Your task to perform on an android device: set default search engine in the chrome app Image 0: 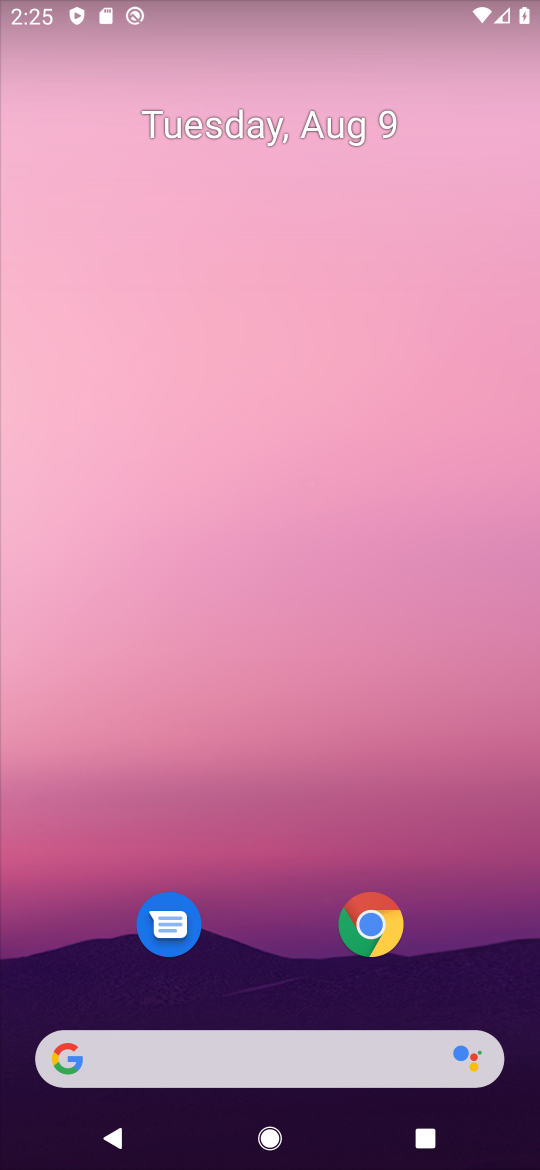
Step 0: click (379, 931)
Your task to perform on an android device: set default search engine in the chrome app Image 1: 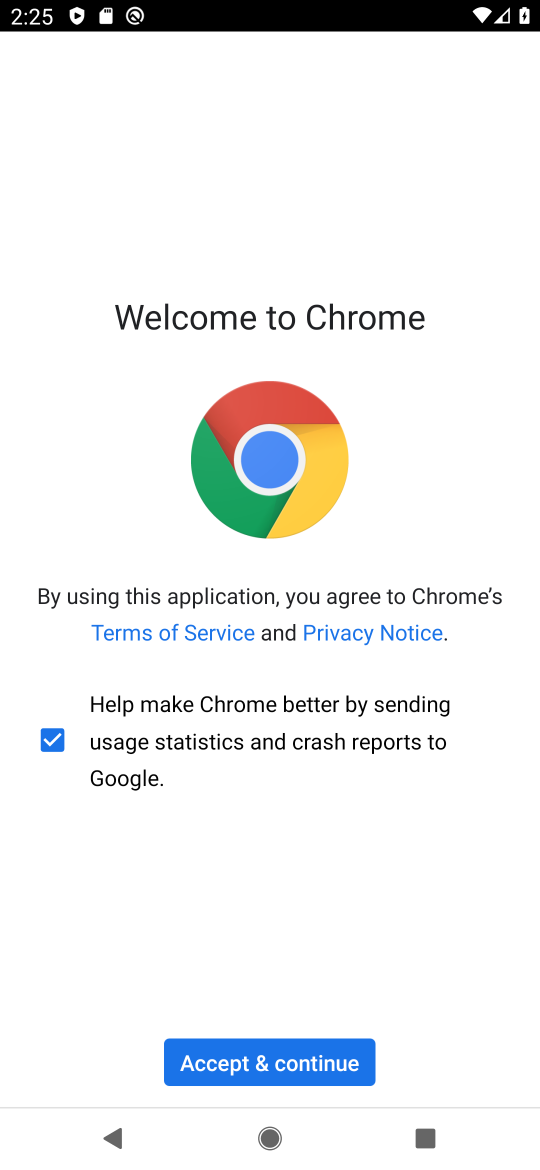
Step 1: click (345, 1056)
Your task to perform on an android device: set default search engine in the chrome app Image 2: 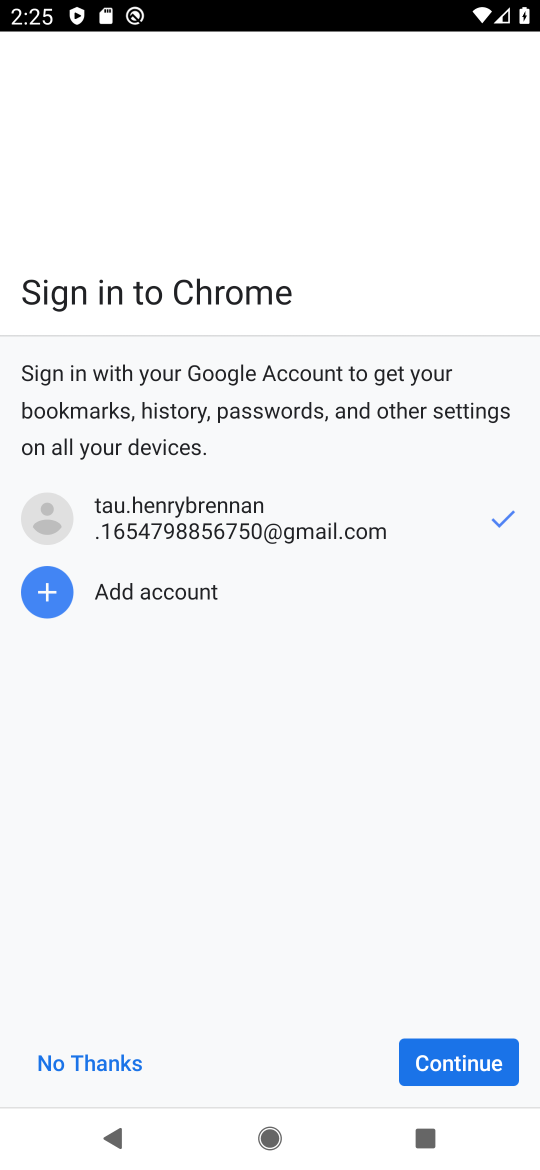
Step 2: click (419, 1060)
Your task to perform on an android device: set default search engine in the chrome app Image 3: 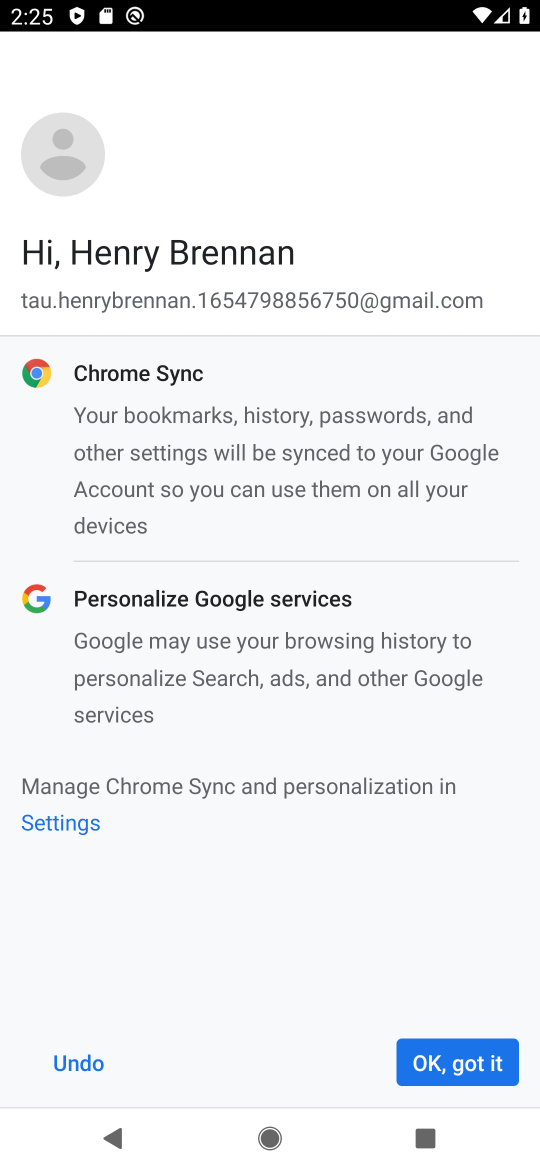
Step 3: click (419, 1060)
Your task to perform on an android device: set default search engine in the chrome app Image 4: 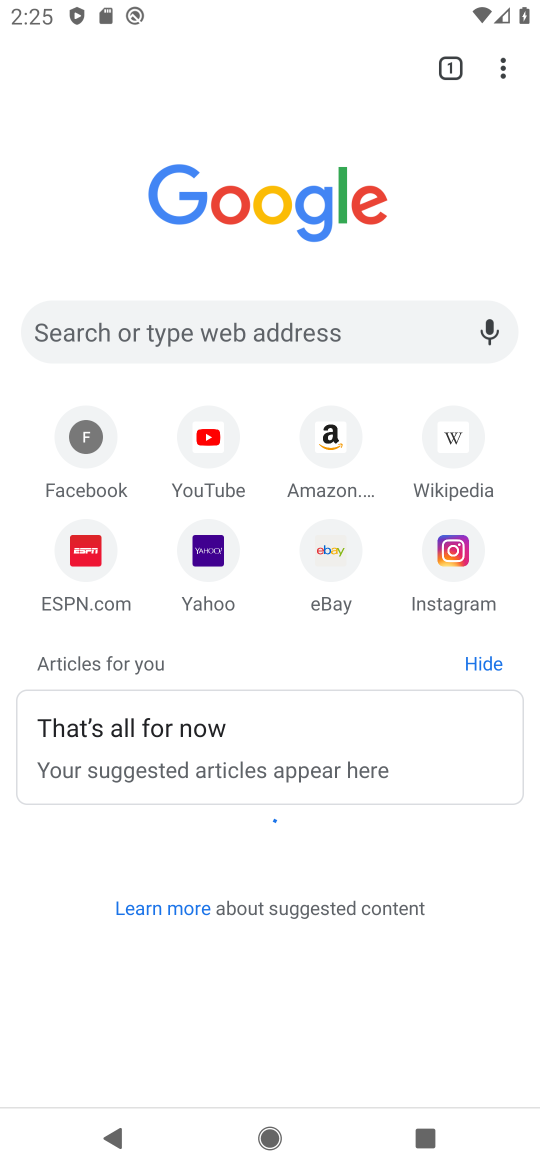
Step 4: click (498, 70)
Your task to perform on an android device: set default search engine in the chrome app Image 5: 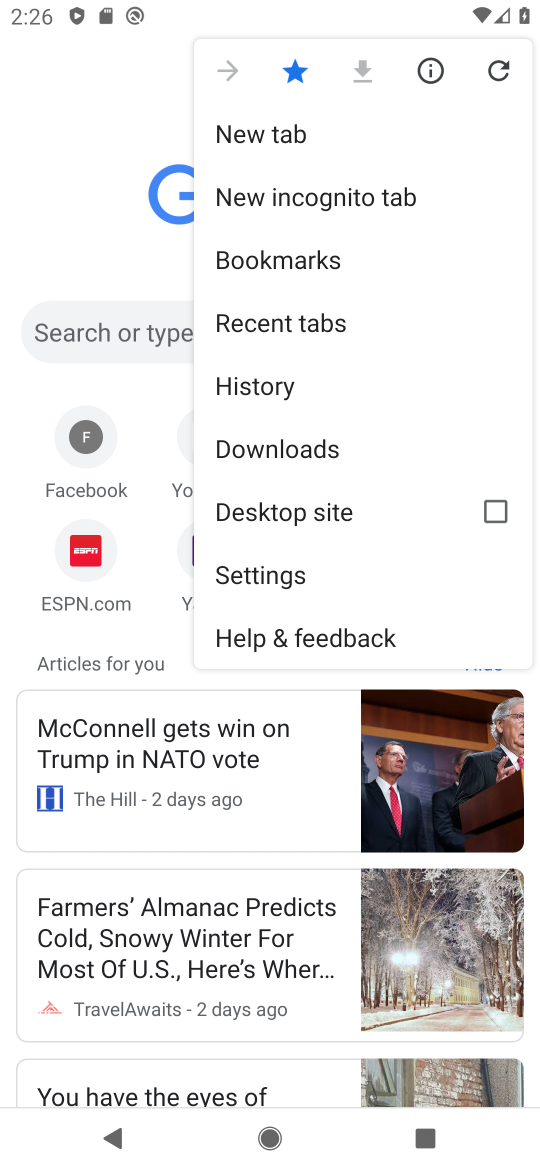
Step 5: click (336, 583)
Your task to perform on an android device: set default search engine in the chrome app Image 6: 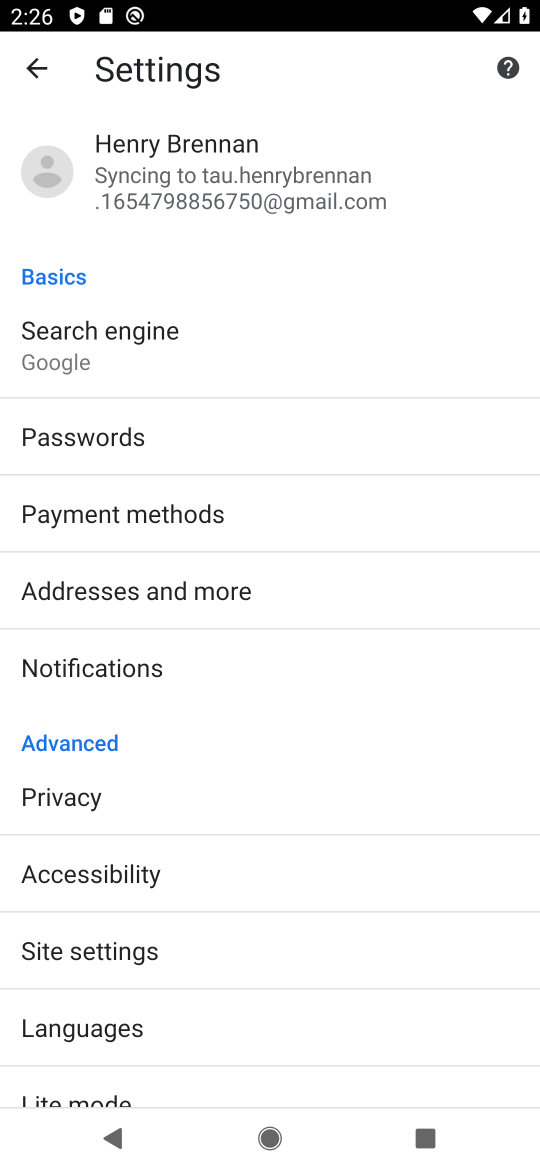
Step 6: click (336, 583)
Your task to perform on an android device: set default search engine in the chrome app Image 7: 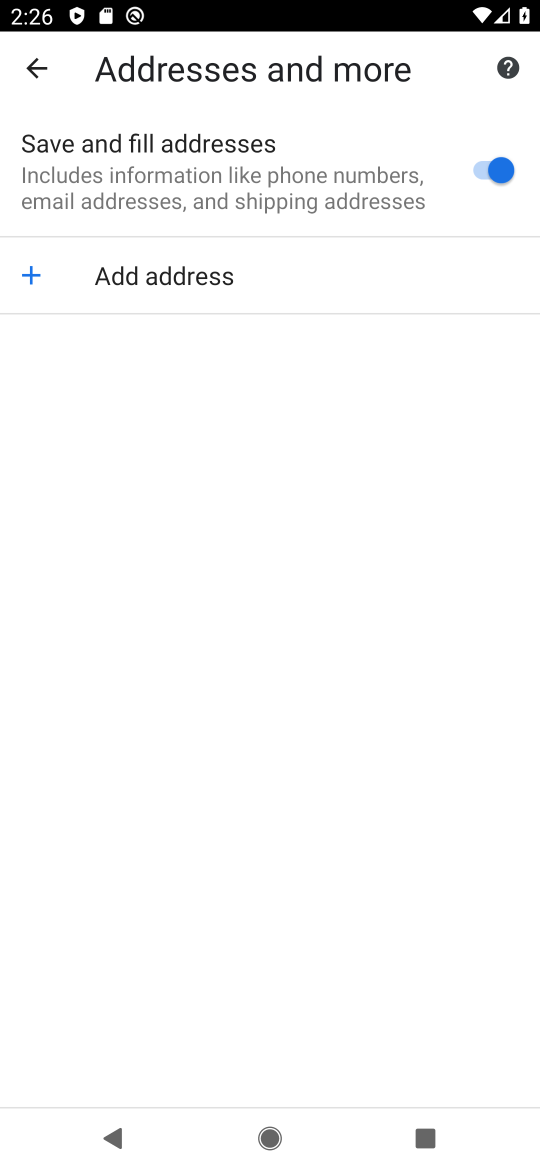
Step 7: click (36, 55)
Your task to perform on an android device: set default search engine in the chrome app Image 8: 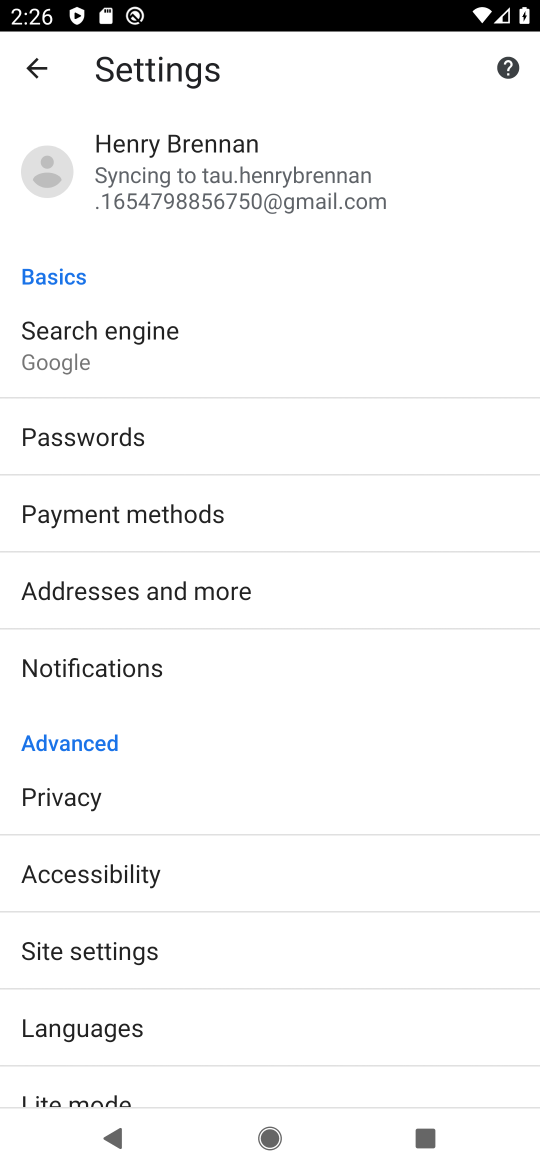
Step 8: click (116, 334)
Your task to perform on an android device: set default search engine in the chrome app Image 9: 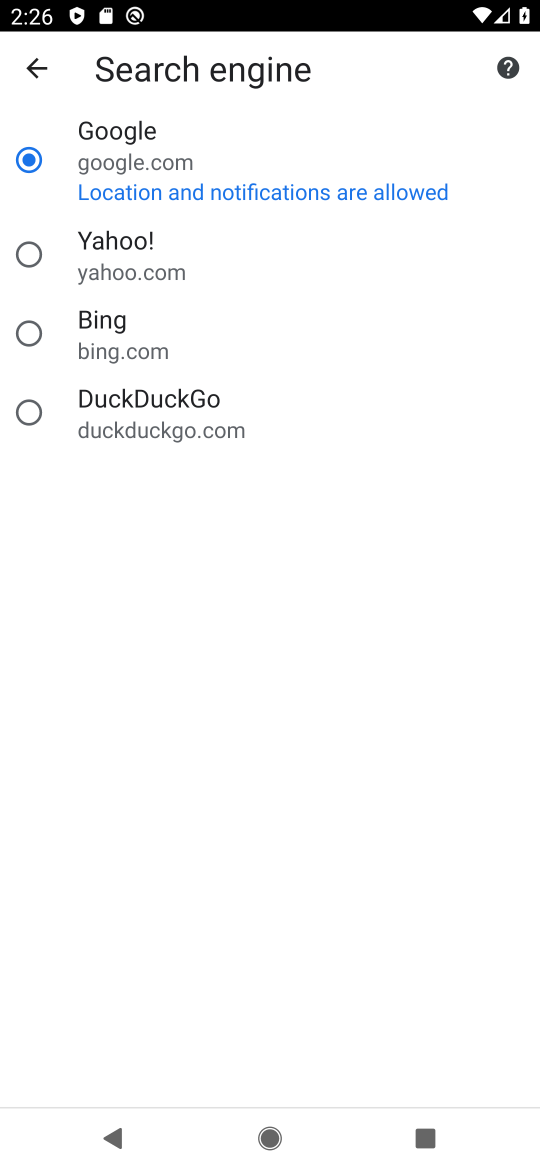
Step 9: task complete